Your task to perform on an android device: open a new tab in the chrome app Image 0: 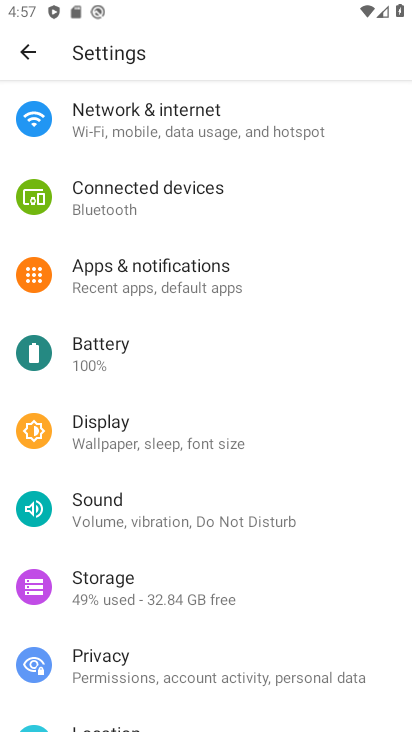
Step 0: press back button
Your task to perform on an android device: open a new tab in the chrome app Image 1: 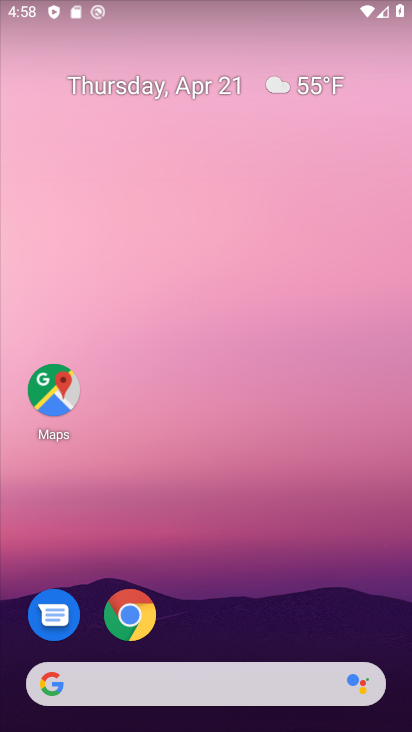
Step 1: drag from (277, 587) to (256, 19)
Your task to perform on an android device: open a new tab in the chrome app Image 2: 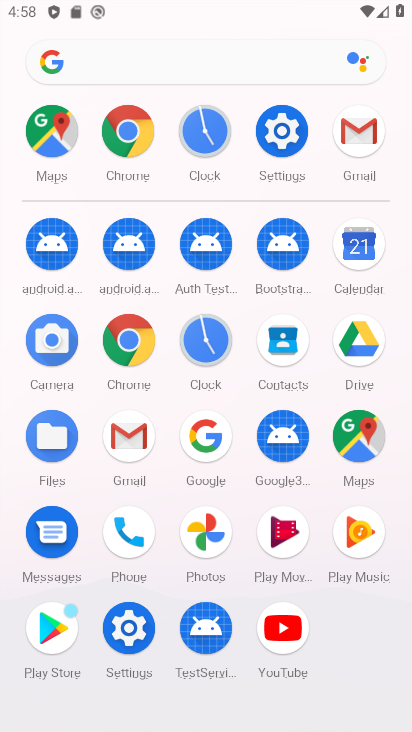
Step 2: drag from (14, 540) to (27, 294)
Your task to perform on an android device: open a new tab in the chrome app Image 3: 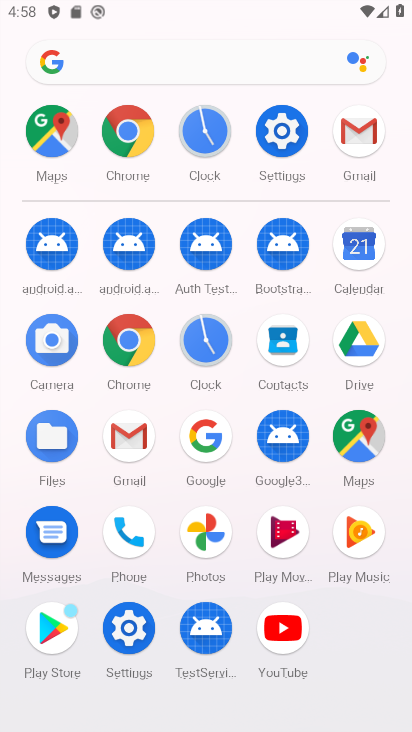
Step 3: click (131, 343)
Your task to perform on an android device: open a new tab in the chrome app Image 4: 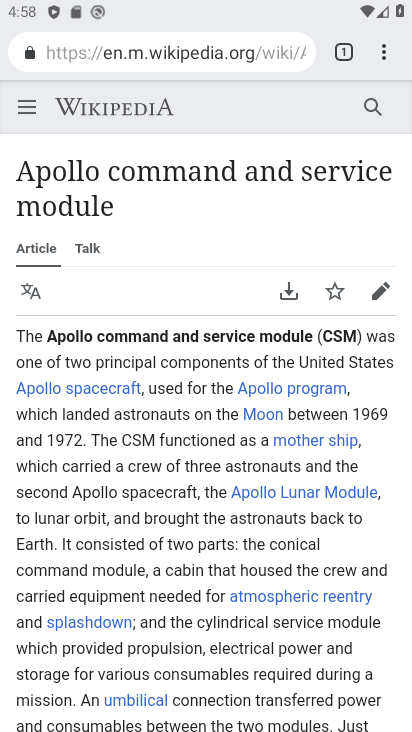
Step 4: click (381, 54)
Your task to perform on an android device: open a new tab in the chrome app Image 5: 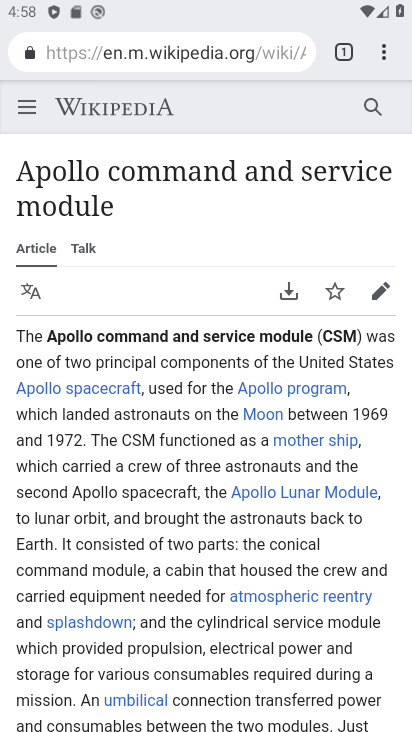
Step 5: task complete